Your task to perform on an android device: Toggle the flashlight Image 0: 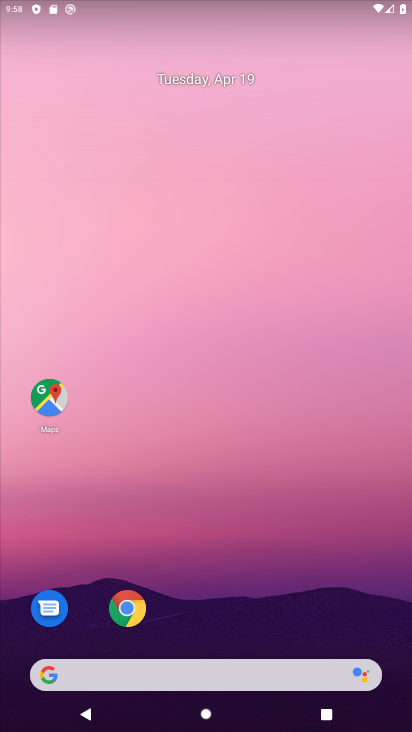
Step 0: drag from (369, 561) to (349, 127)
Your task to perform on an android device: Toggle the flashlight Image 1: 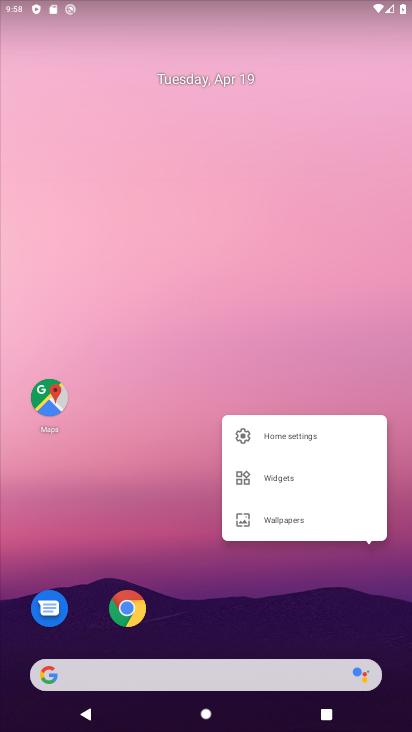
Step 1: drag from (399, 605) to (394, 142)
Your task to perform on an android device: Toggle the flashlight Image 2: 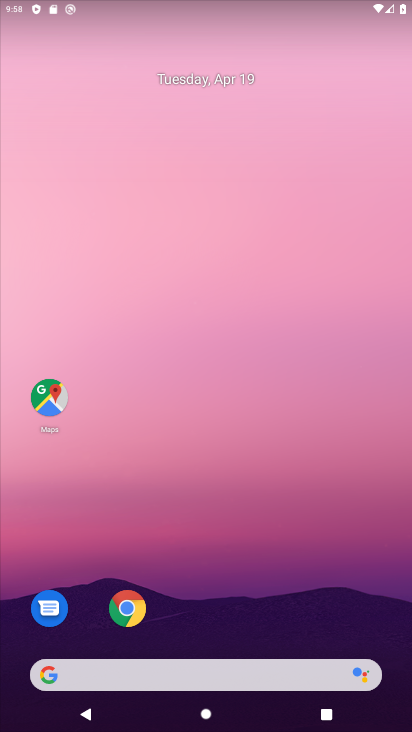
Step 2: drag from (396, 643) to (370, 151)
Your task to perform on an android device: Toggle the flashlight Image 3: 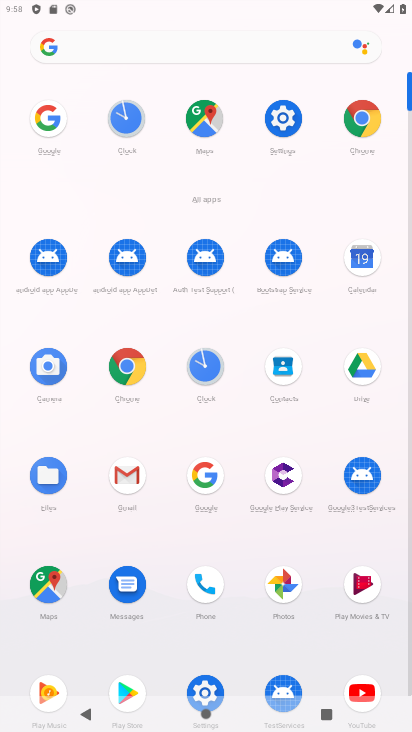
Step 3: click (282, 103)
Your task to perform on an android device: Toggle the flashlight Image 4: 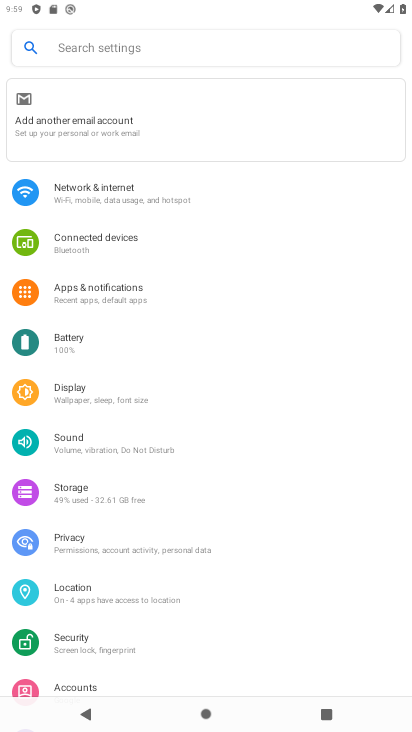
Step 4: click (70, 388)
Your task to perform on an android device: Toggle the flashlight Image 5: 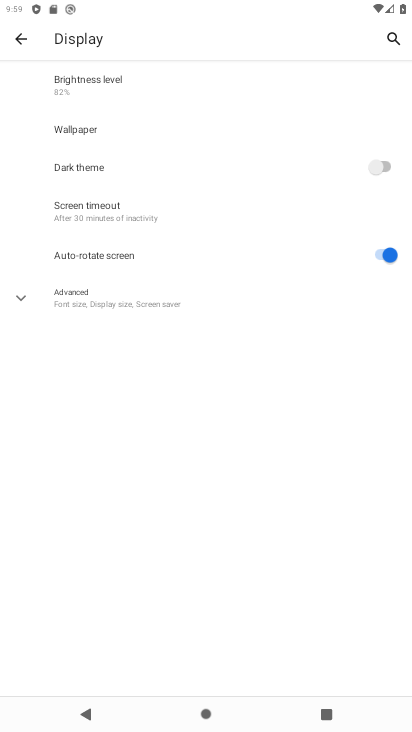
Step 5: task complete